Your task to perform on an android device: open device folders in google photos Image 0: 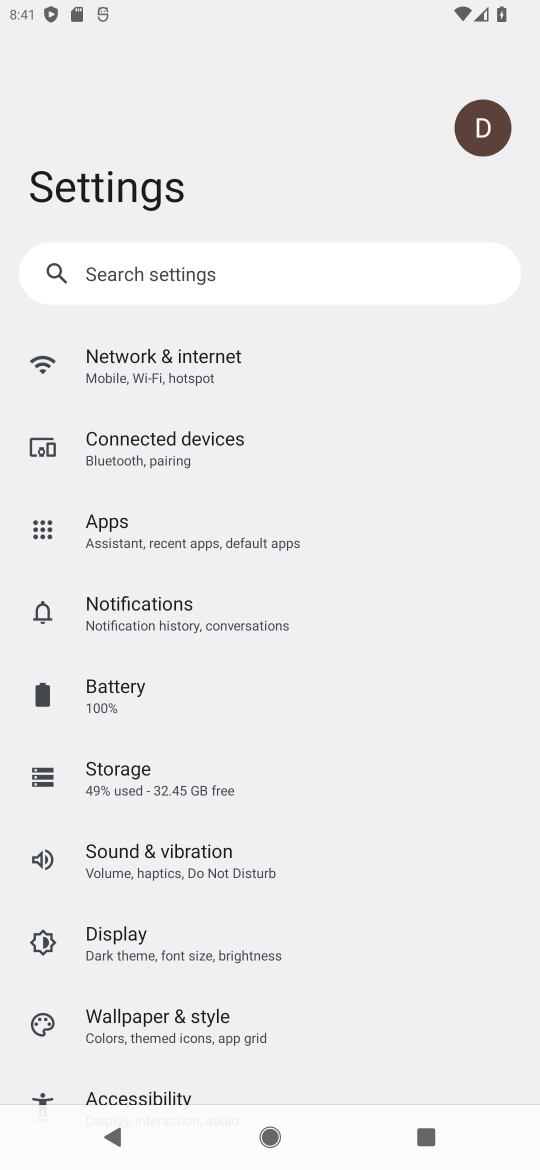
Step 0: press home button
Your task to perform on an android device: open device folders in google photos Image 1: 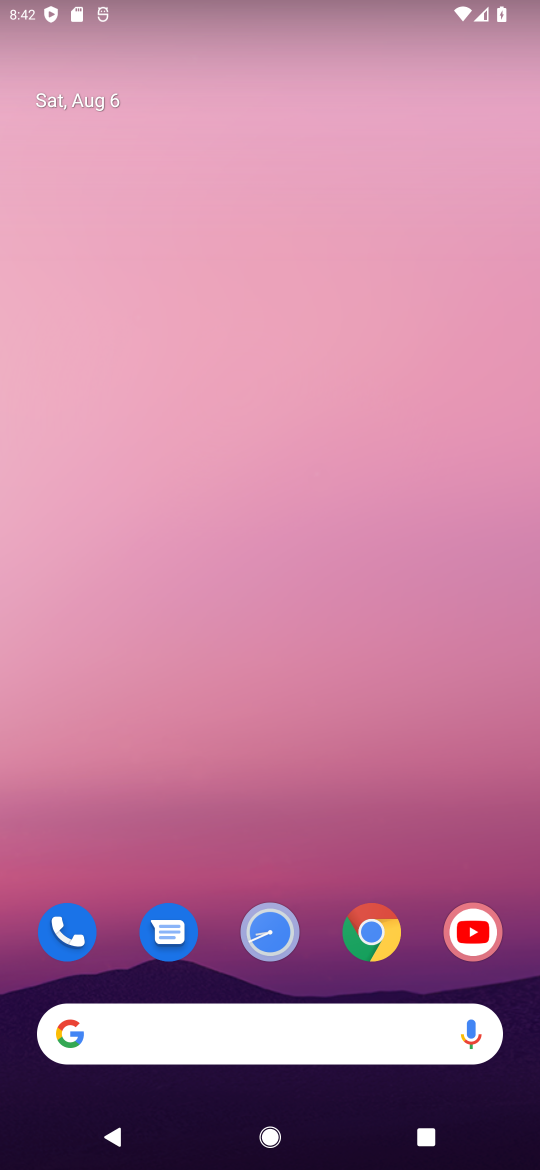
Step 1: drag from (235, 1033) to (342, 359)
Your task to perform on an android device: open device folders in google photos Image 2: 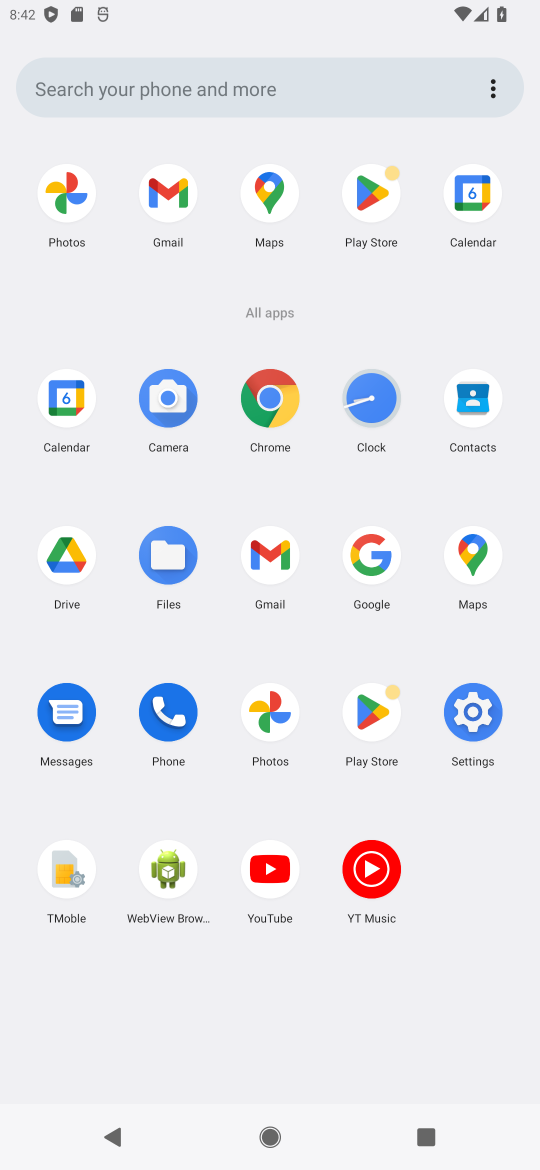
Step 2: click (69, 194)
Your task to perform on an android device: open device folders in google photos Image 3: 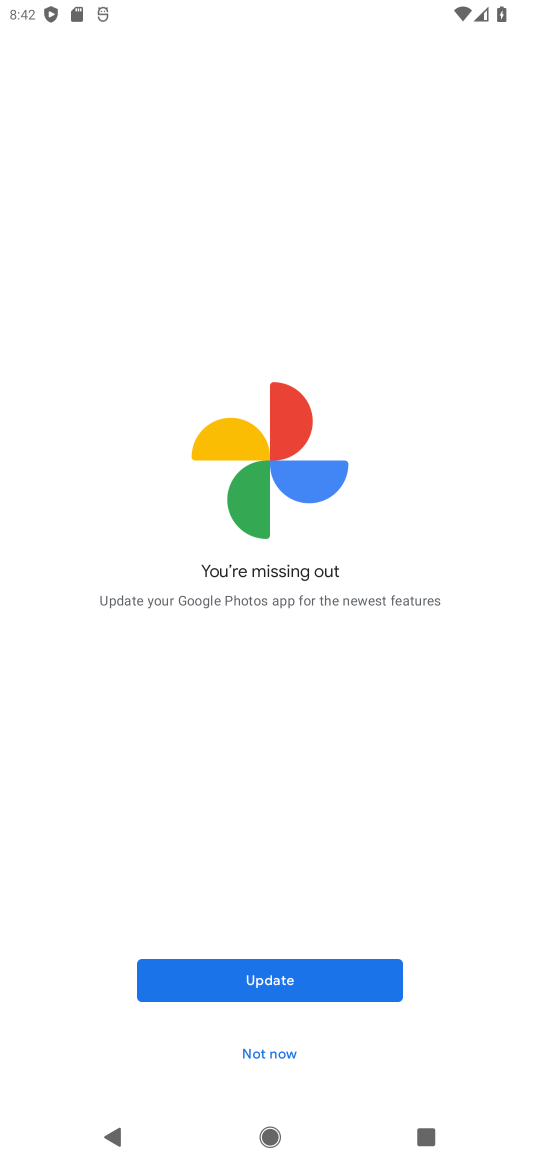
Step 3: click (259, 973)
Your task to perform on an android device: open device folders in google photos Image 4: 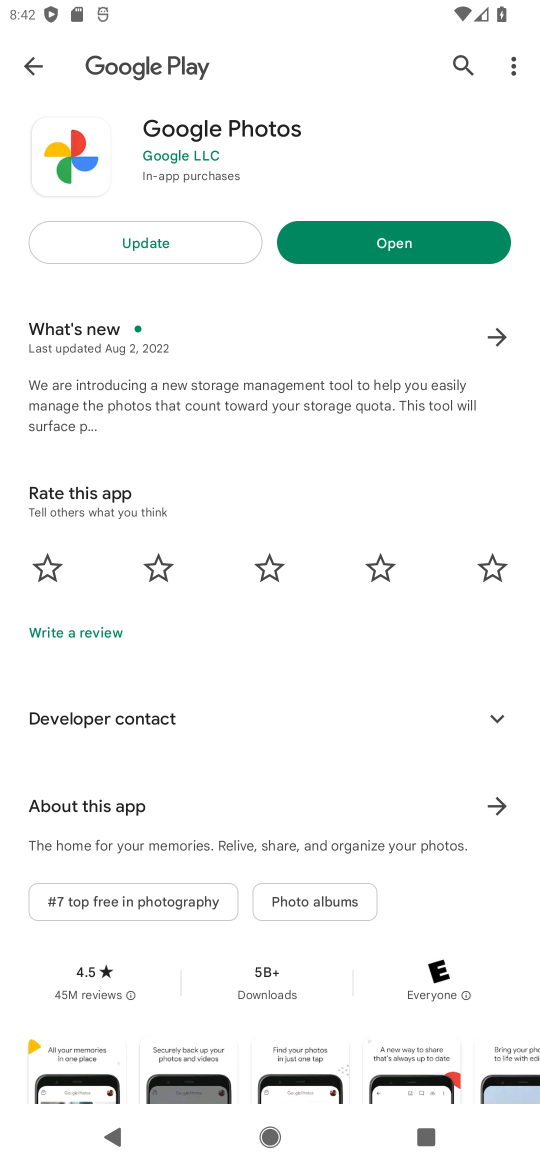
Step 4: click (139, 244)
Your task to perform on an android device: open device folders in google photos Image 5: 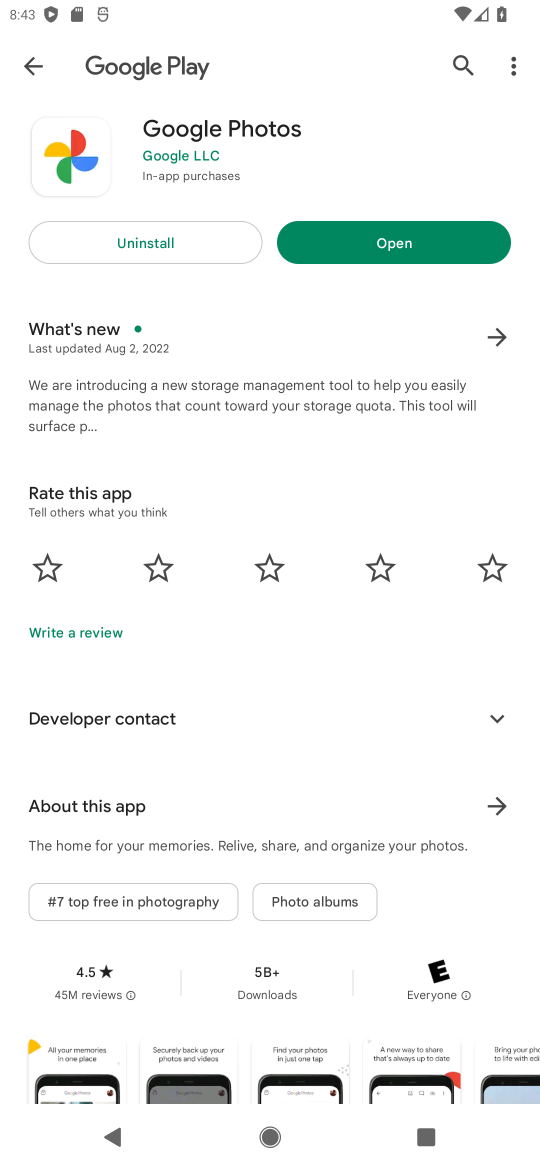
Step 5: click (354, 252)
Your task to perform on an android device: open device folders in google photos Image 6: 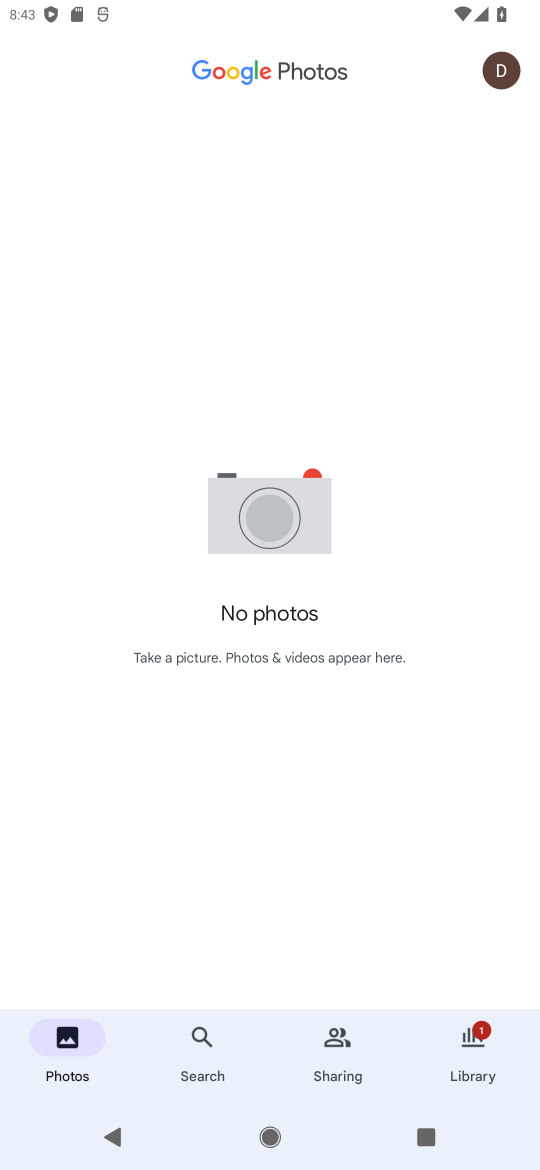
Step 6: click (275, 73)
Your task to perform on an android device: open device folders in google photos Image 7: 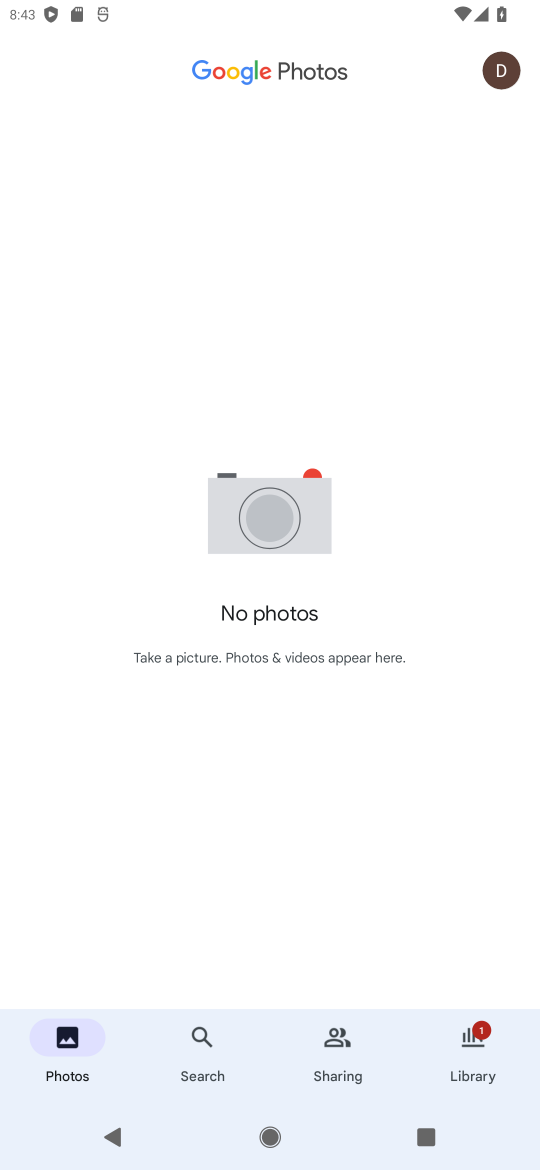
Step 7: click (192, 1035)
Your task to perform on an android device: open device folders in google photos Image 8: 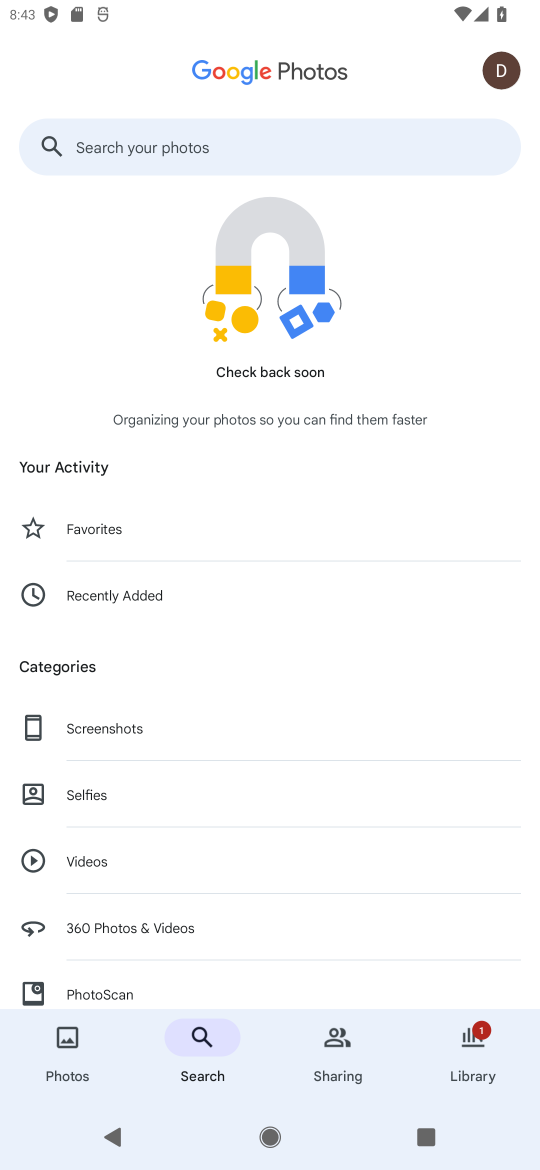
Step 8: drag from (150, 832) to (194, 717)
Your task to perform on an android device: open device folders in google photos Image 9: 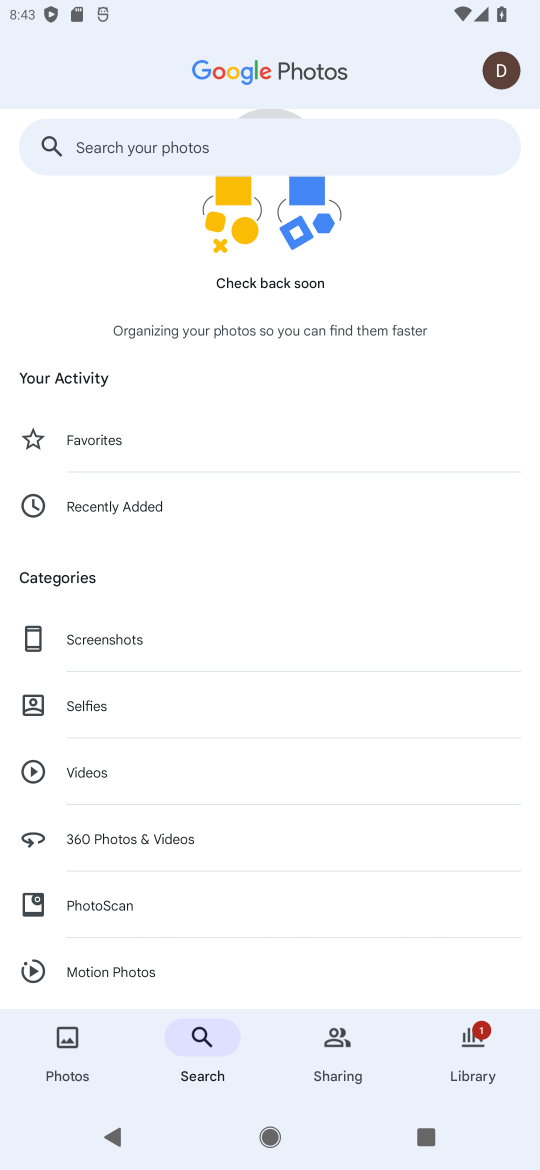
Step 9: drag from (220, 868) to (291, 744)
Your task to perform on an android device: open device folders in google photos Image 10: 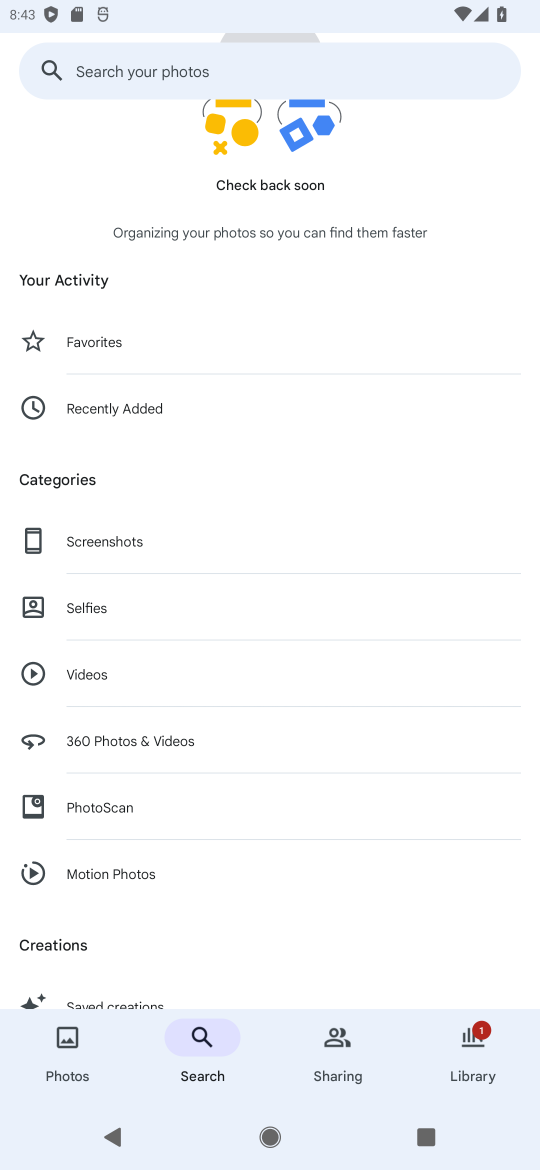
Step 10: drag from (221, 871) to (307, 743)
Your task to perform on an android device: open device folders in google photos Image 11: 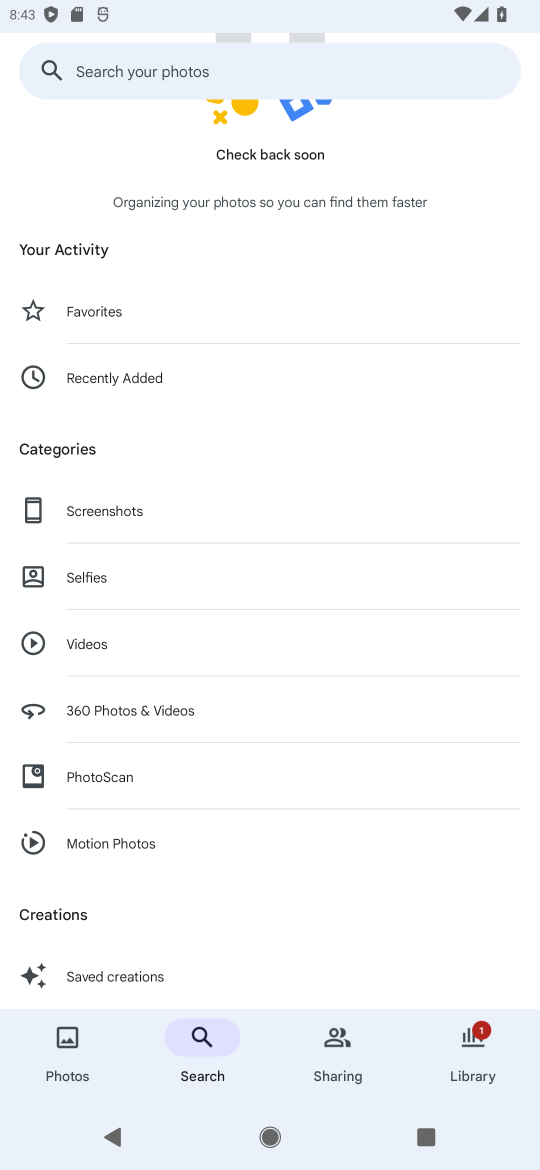
Step 11: drag from (224, 855) to (345, 705)
Your task to perform on an android device: open device folders in google photos Image 12: 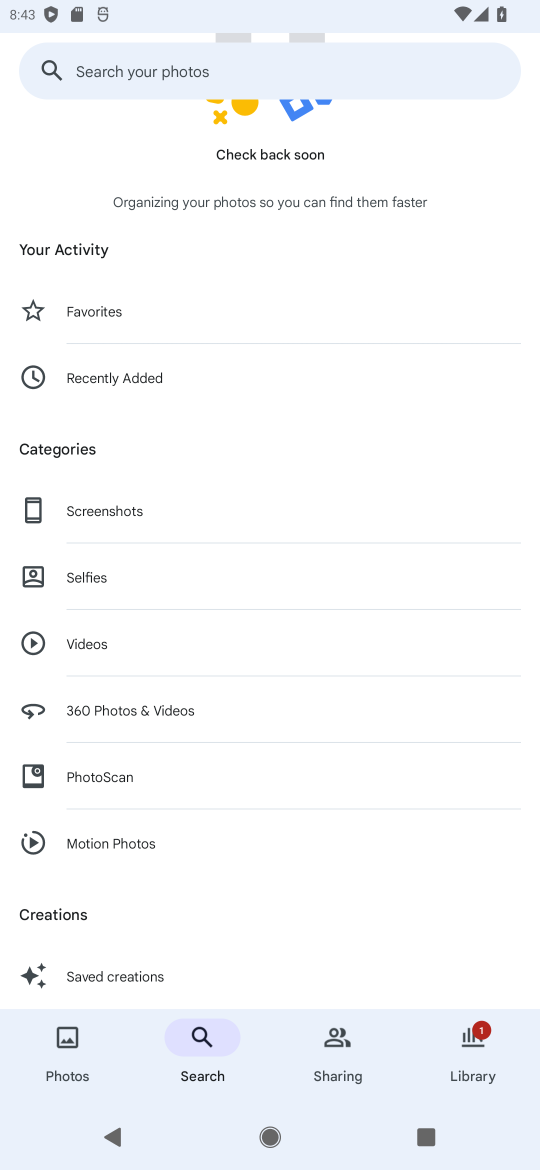
Step 12: drag from (237, 468) to (213, 676)
Your task to perform on an android device: open device folders in google photos Image 13: 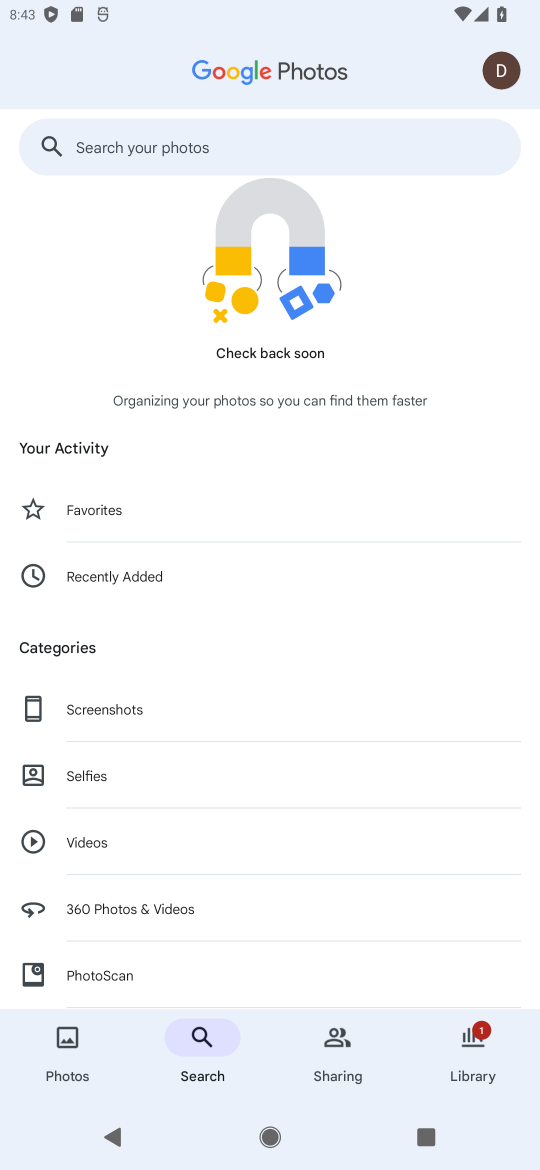
Step 13: click (335, 1066)
Your task to perform on an android device: open device folders in google photos Image 14: 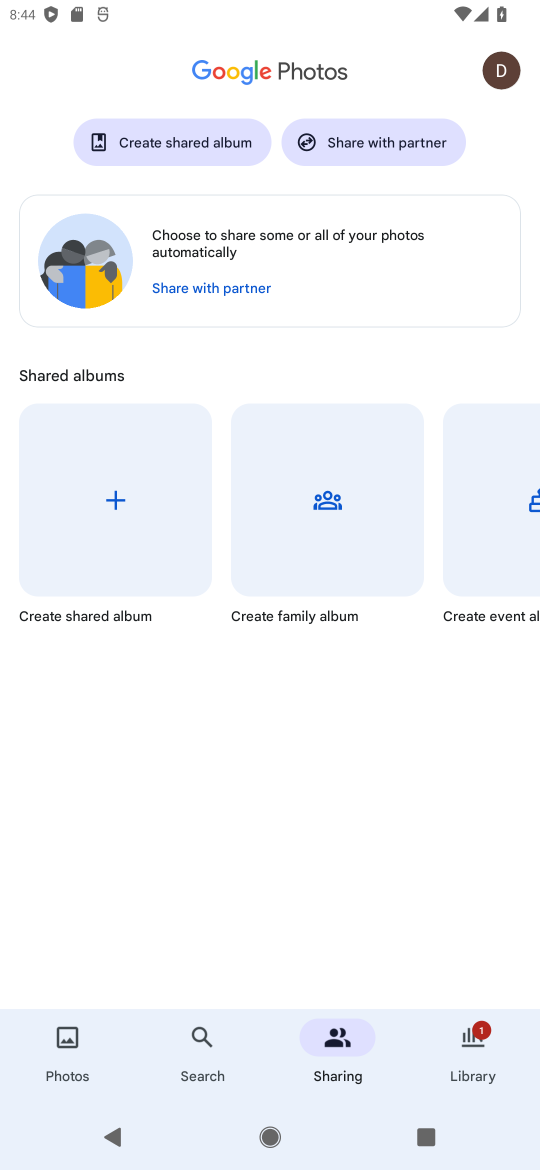
Step 14: click (472, 1056)
Your task to perform on an android device: open device folders in google photos Image 15: 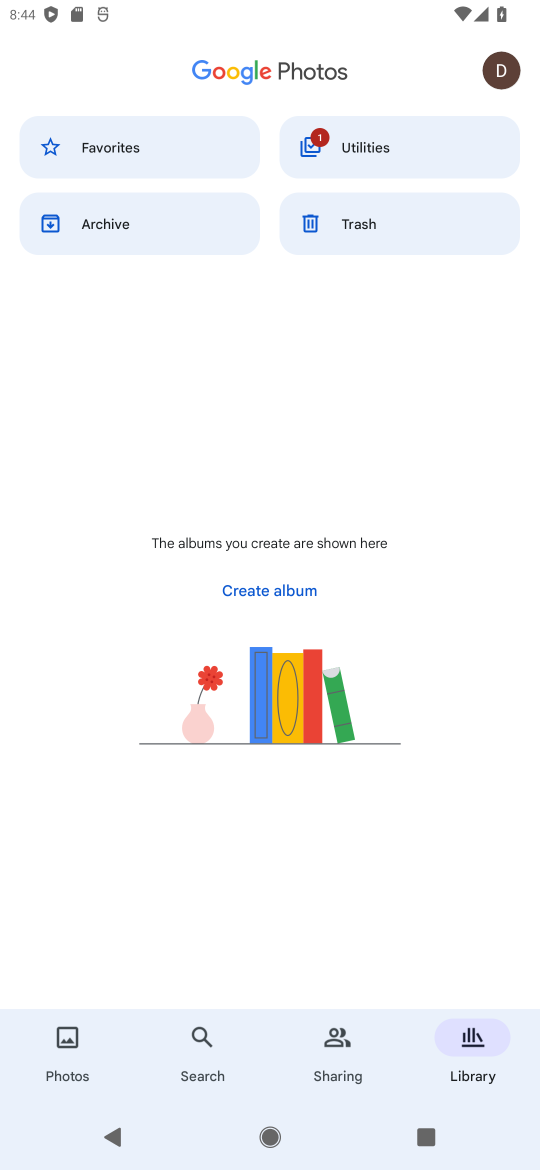
Step 15: click (340, 142)
Your task to perform on an android device: open device folders in google photos Image 16: 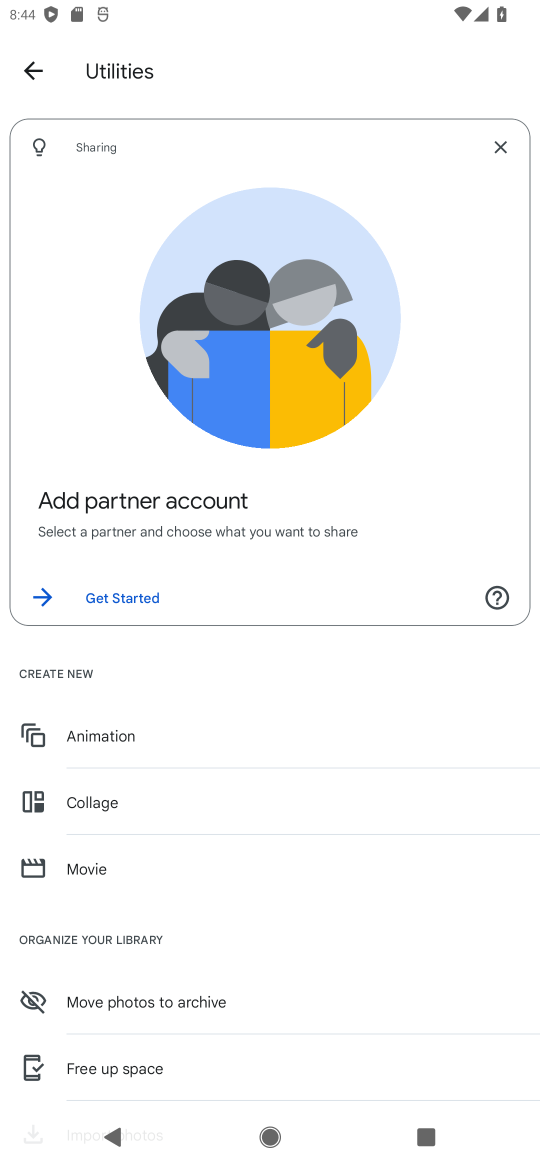
Step 16: drag from (113, 920) to (209, 788)
Your task to perform on an android device: open device folders in google photos Image 17: 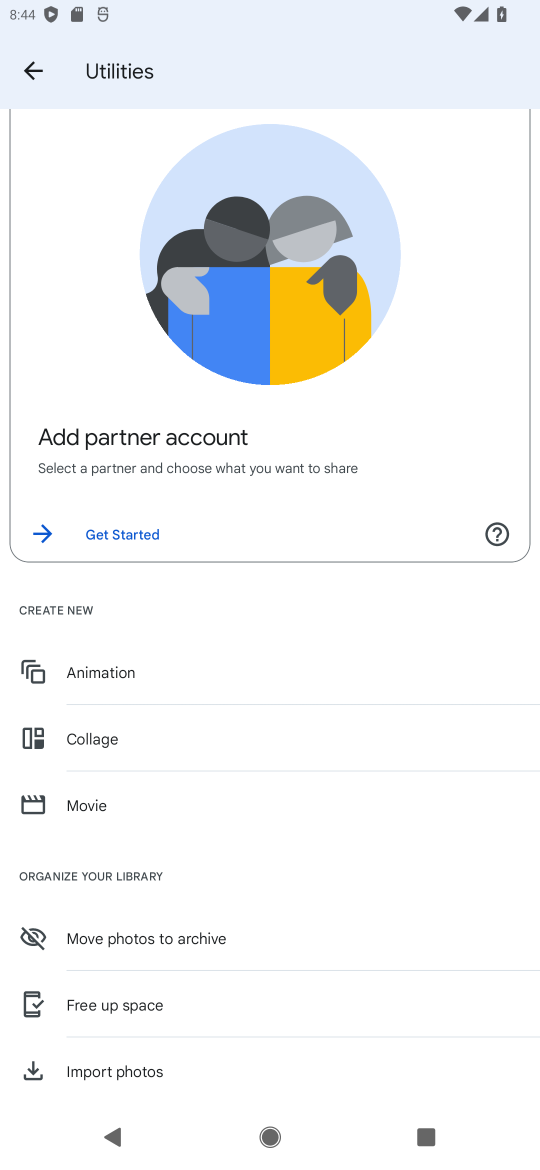
Step 17: drag from (240, 1008) to (344, 880)
Your task to perform on an android device: open device folders in google photos Image 18: 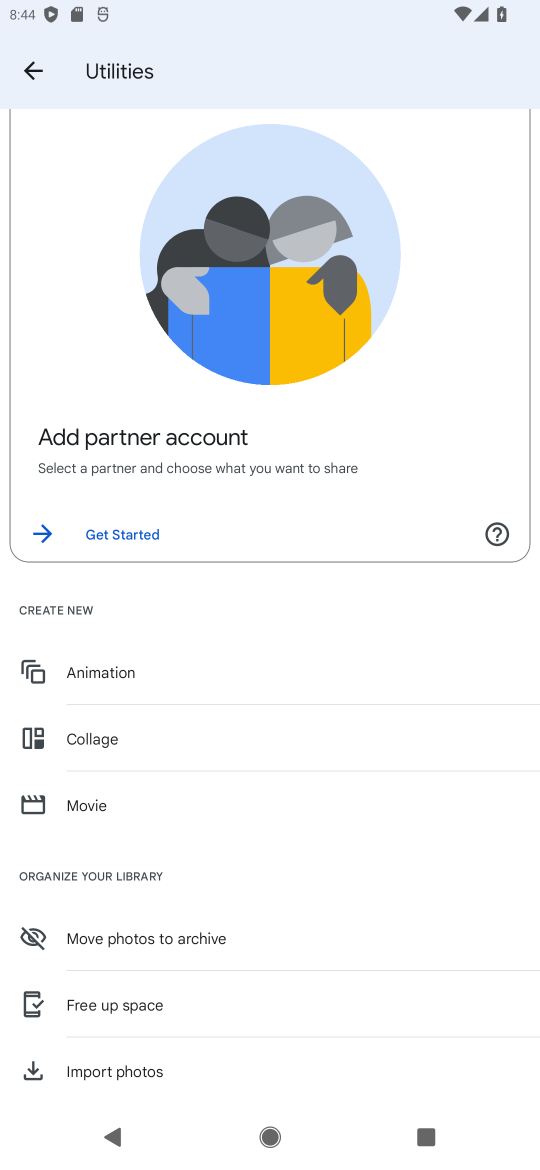
Step 18: press back button
Your task to perform on an android device: open device folders in google photos Image 19: 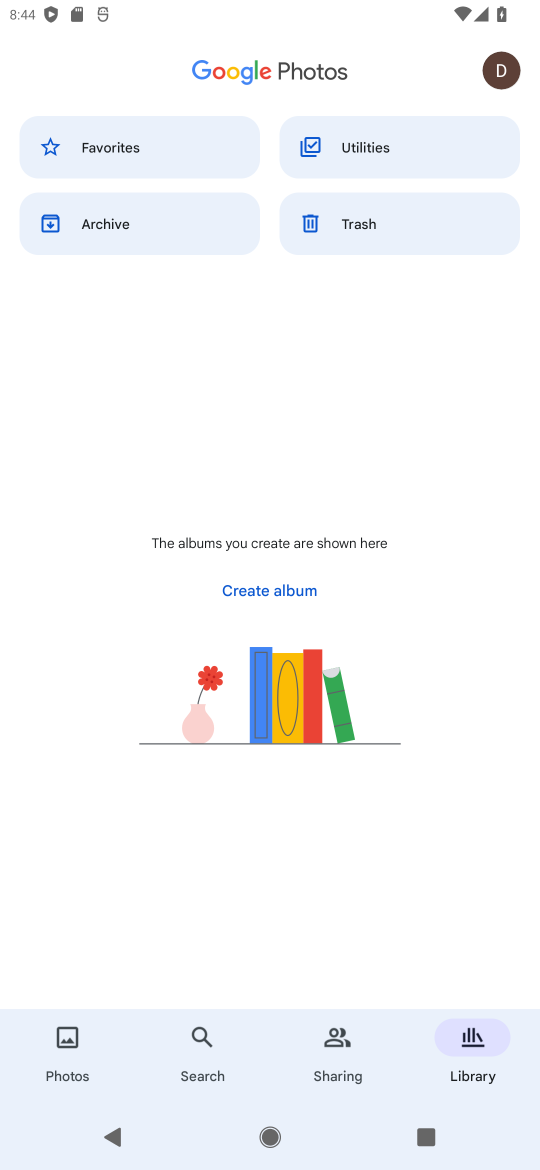
Step 19: click (117, 227)
Your task to perform on an android device: open device folders in google photos Image 20: 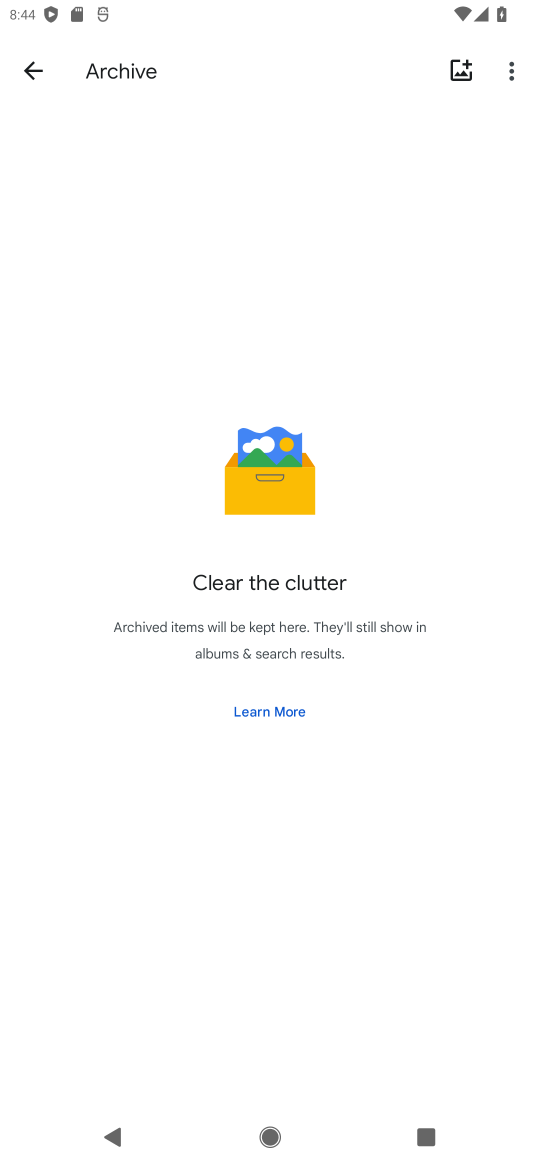
Step 20: press back button
Your task to perform on an android device: open device folders in google photos Image 21: 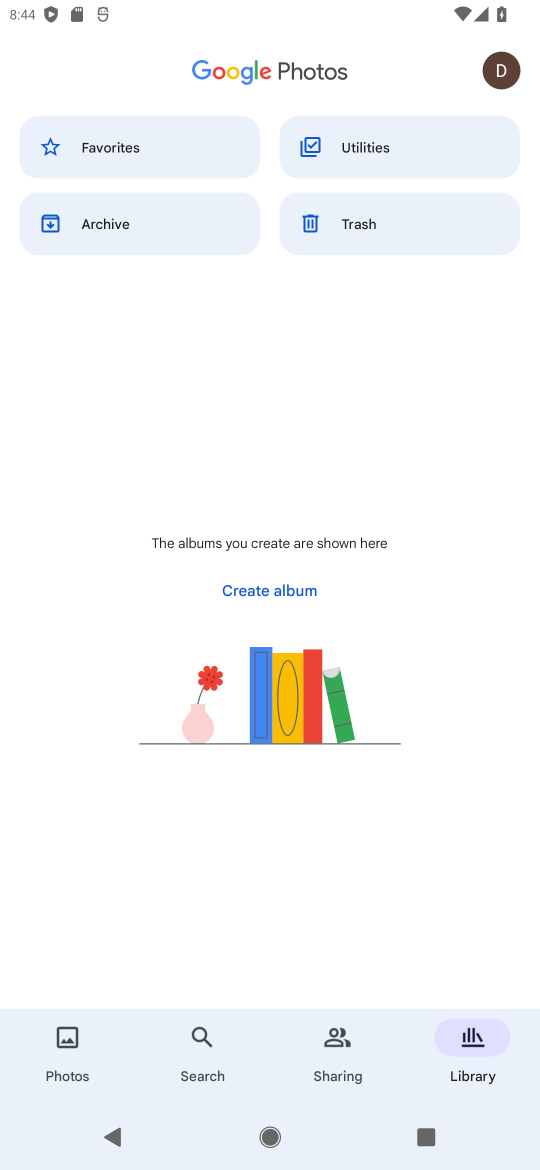
Step 21: click (387, 247)
Your task to perform on an android device: open device folders in google photos Image 22: 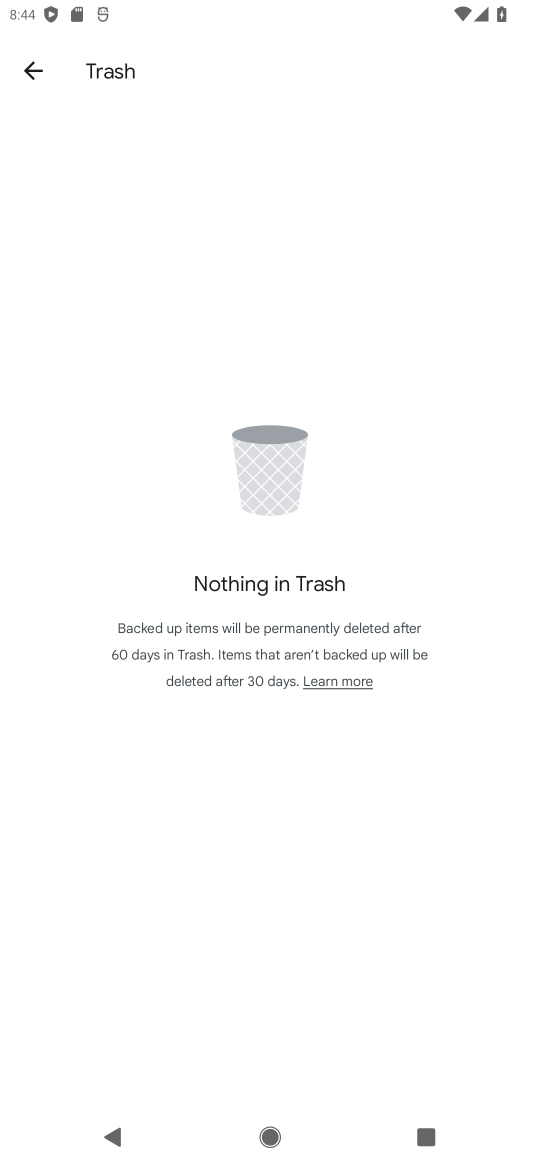
Step 22: press back button
Your task to perform on an android device: open device folders in google photos Image 23: 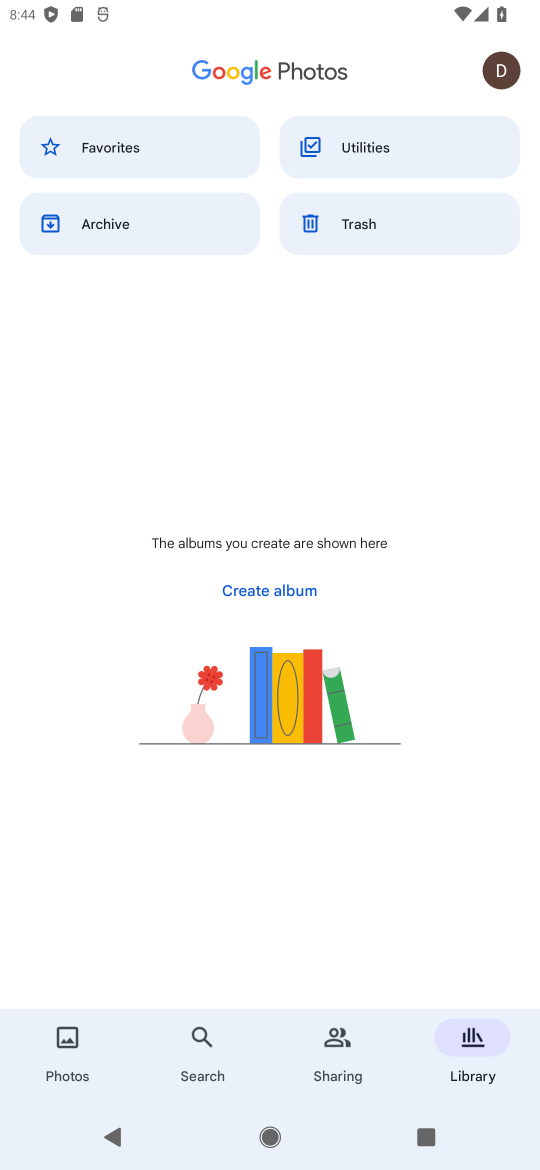
Step 23: click (153, 144)
Your task to perform on an android device: open device folders in google photos Image 24: 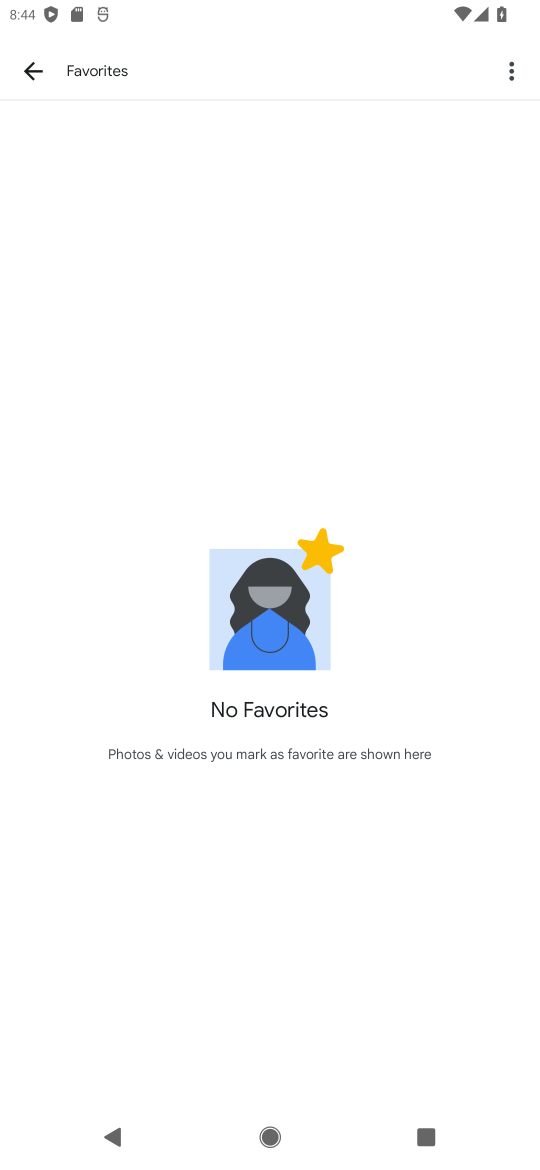
Step 24: task complete